Your task to perform on an android device: Go to Android settings Image 0: 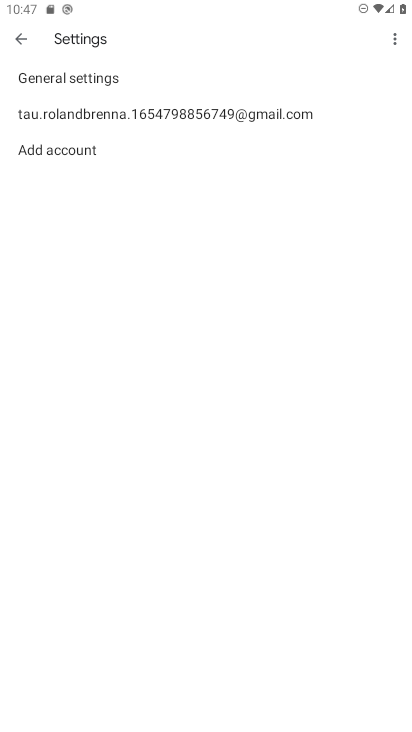
Step 0: press home button
Your task to perform on an android device: Go to Android settings Image 1: 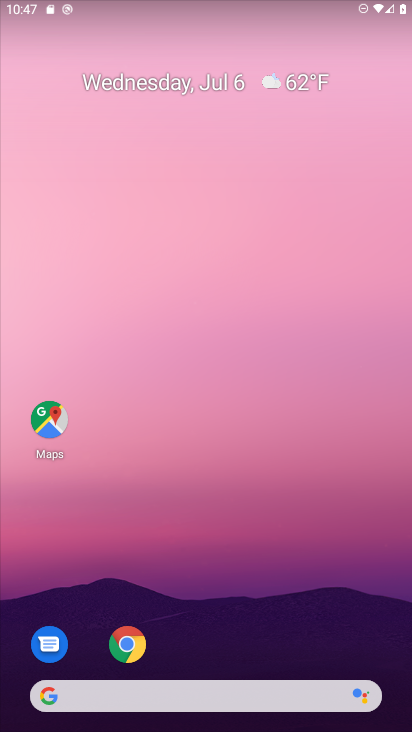
Step 1: drag from (198, 290) to (205, 89)
Your task to perform on an android device: Go to Android settings Image 2: 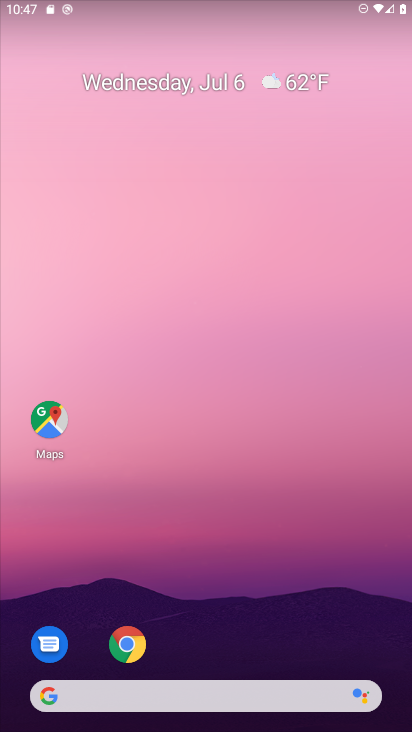
Step 2: drag from (263, 534) to (251, 0)
Your task to perform on an android device: Go to Android settings Image 3: 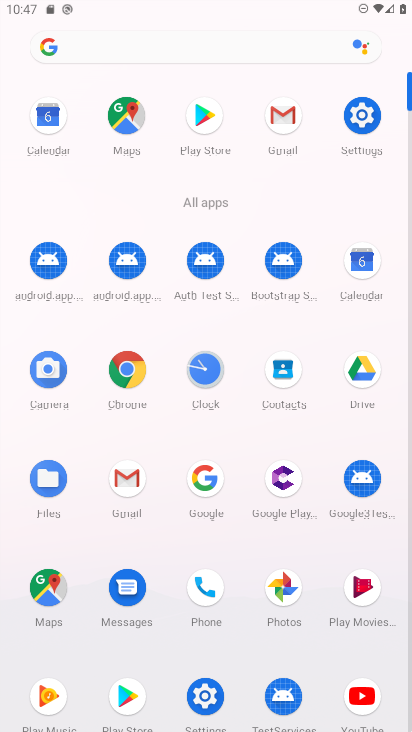
Step 3: click (362, 114)
Your task to perform on an android device: Go to Android settings Image 4: 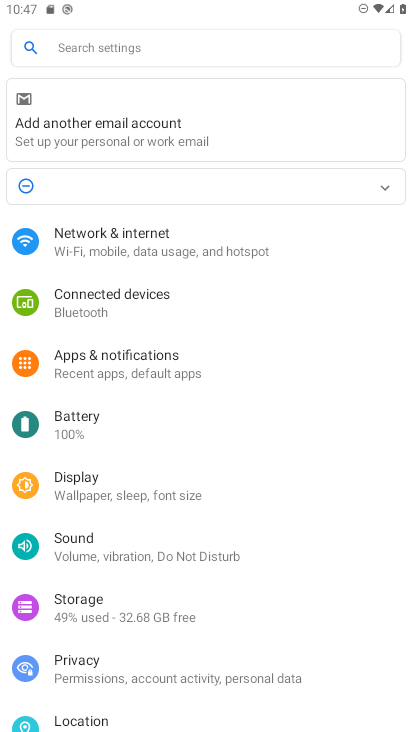
Step 4: press home button
Your task to perform on an android device: Go to Android settings Image 5: 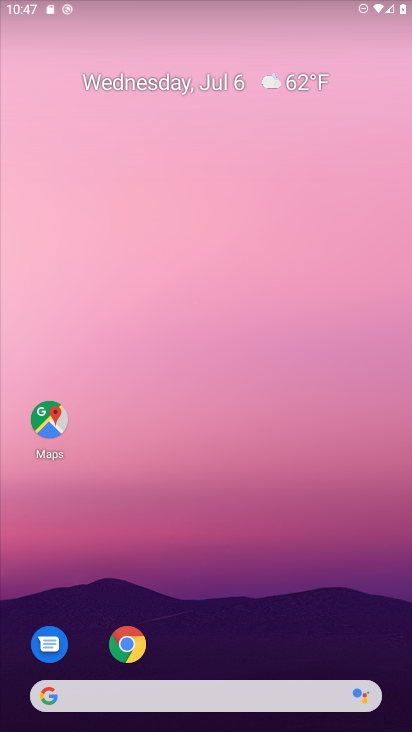
Step 5: drag from (218, 616) to (269, 42)
Your task to perform on an android device: Go to Android settings Image 6: 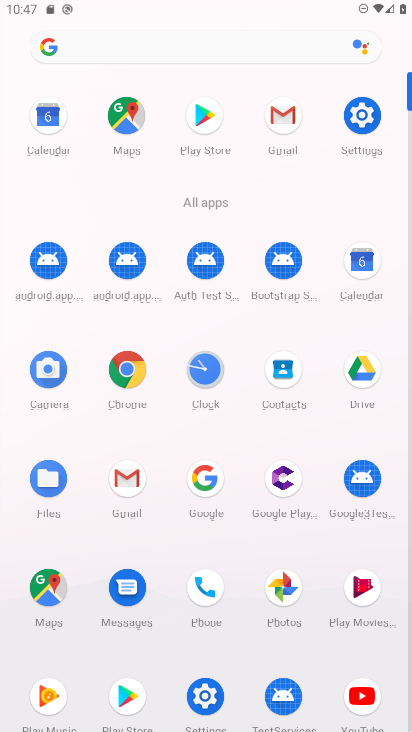
Step 6: click (360, 122)
Your task to perform on an android device: Go to Android settings Image 7: 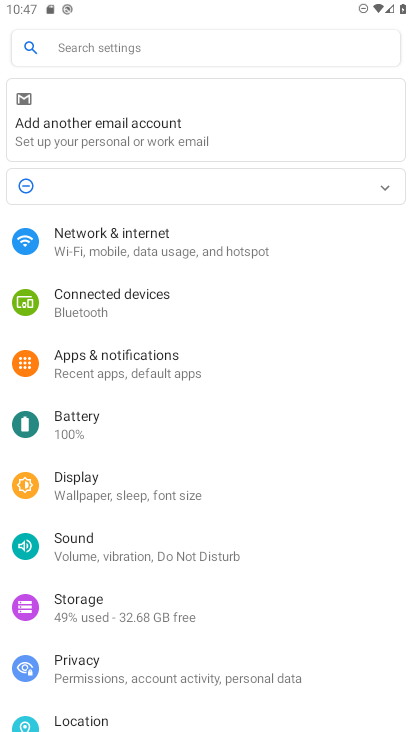
Step 7: task complete